Your task to perform on an android device: uninstall "Messenger Lite" Image 0: 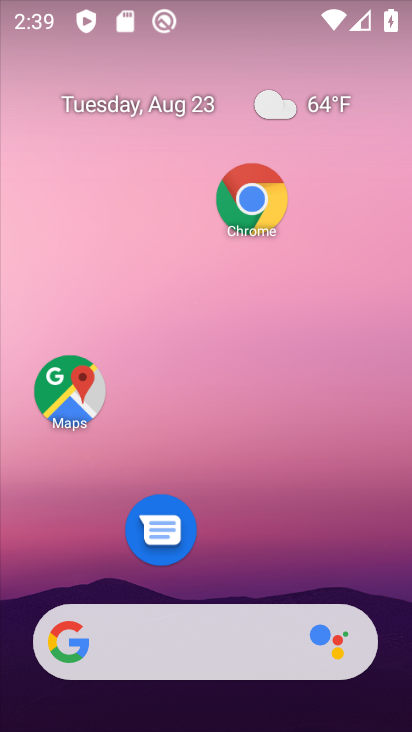
Step 0: drag from (242, 586) to (247, 0)
Your task to perform on an android device: uninstall "Messenger Lite" Image 1: 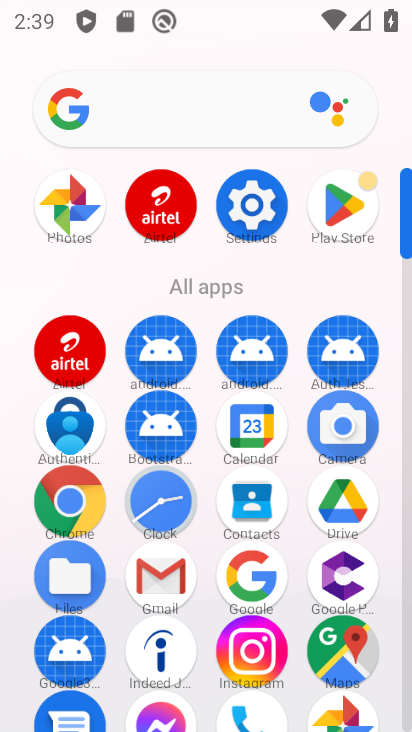
Step 1: click (336, 207)
Your task to perform on an android device: uninstall "Messenger Lite" Image 2: 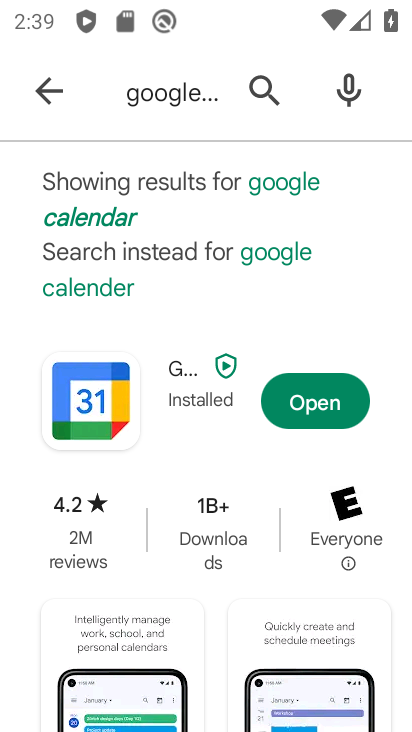
Step 2: click (172, 105)
Your task to perform on an android device: uninstall "Messenger Lite" Image 3: 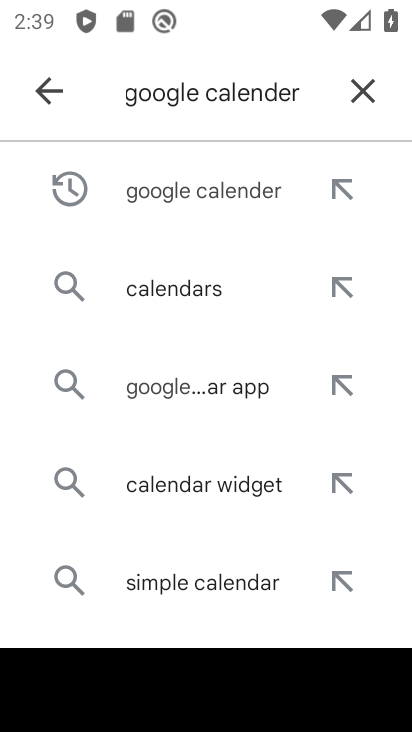
Step 3: click (369, 85)
Your task to perform on an android device: uninstall "Messenger Lite" Image 4: 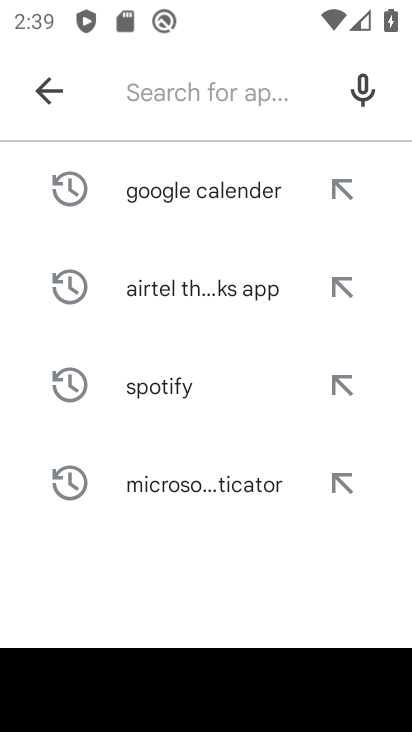
Step 4: type "Messenger Lite"
Your task to perform on an android device: uninstall "Messenger Lite" Image 5: 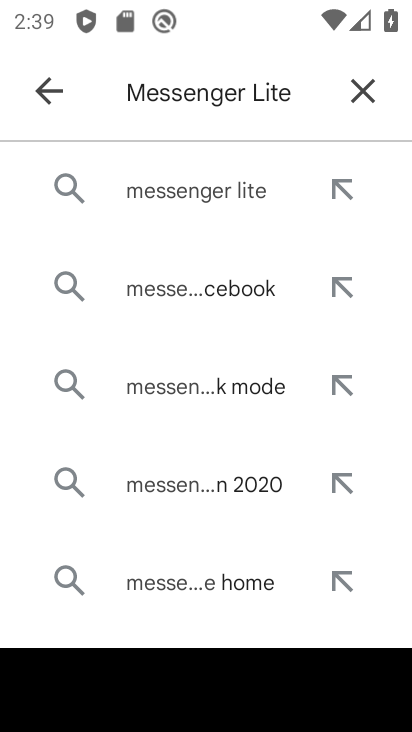
Step 5: click (172, 180)
Your task to perform on an android device: uninstall "Messenger Lite" Image 6: 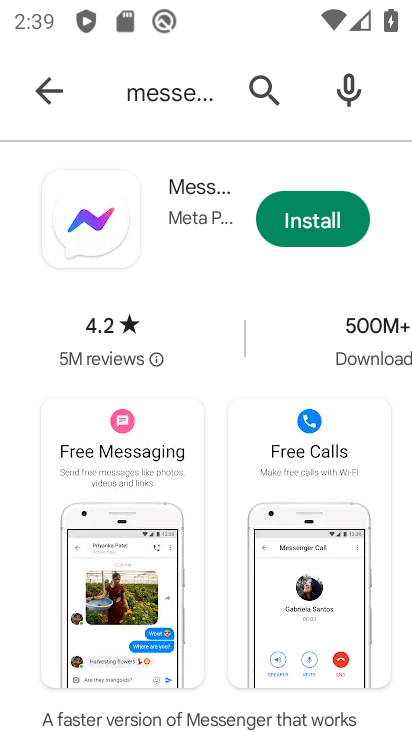
Step 6: task complete